Your task to perform on an android device: turn pop-ups off in chrome Image 0: 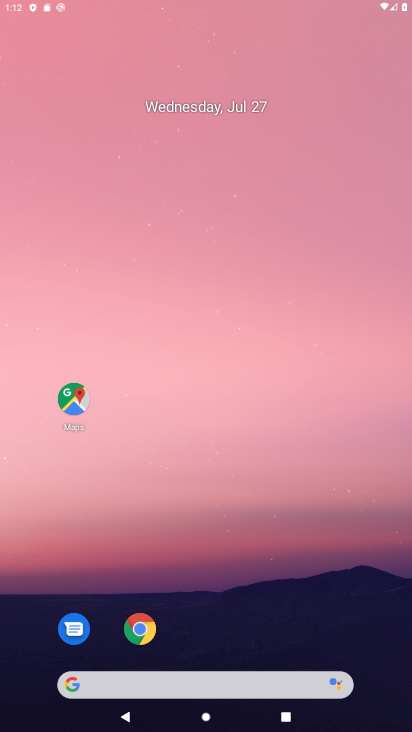
Step 0: press home button
Your task to perform on an android device: turn pop-ups off in chrome Image 1: 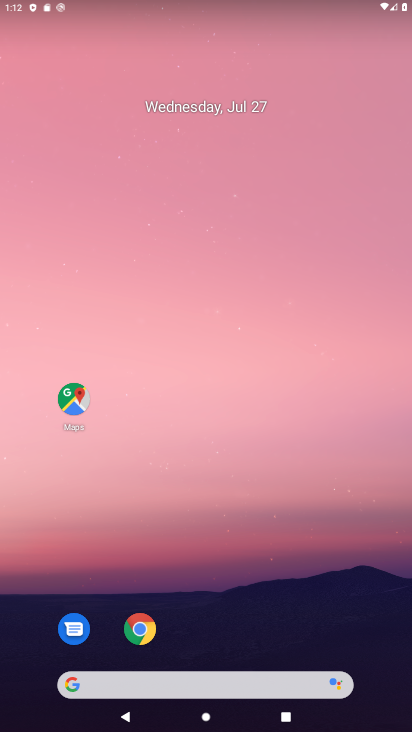
Step 1: drag from (244, 648) to (261, 345)
Your task to perform on an android device: turn pop-ups off in chrome Image 2: 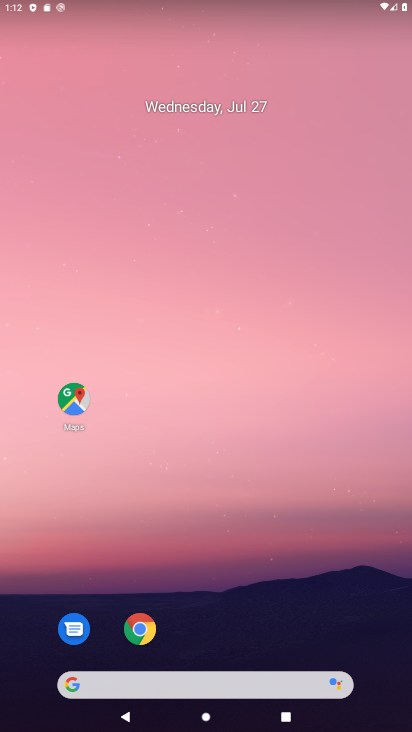
Step 2: drag from (339, 638) to (344, 54)
Your task to perform on an android device: turn pop-ups off in chrome Image 3: 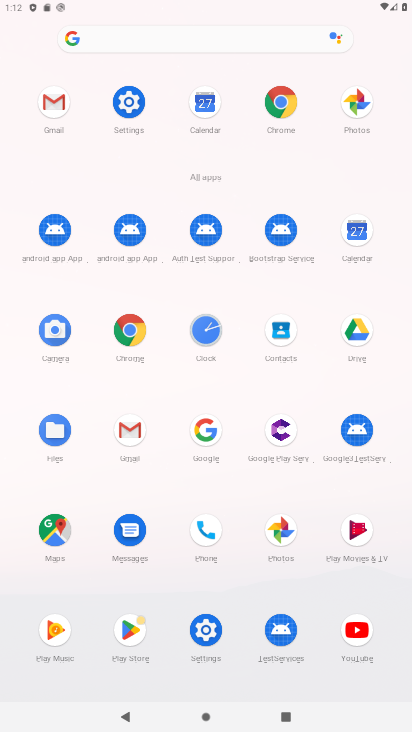
Step 3: click (278, 114)
Your task to perform on an android device: turn pop-ups off in chrome Image 4: 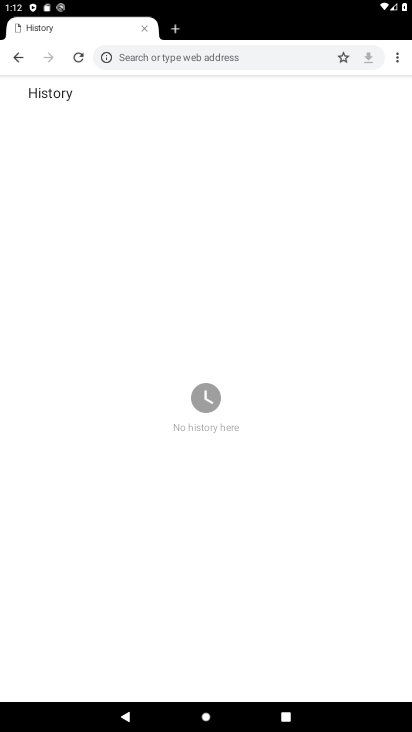
Step 4: drag from (396, 49) to (282, 259)
Your task to perform on an android device: turn pop-ups off in chrome Image 5: 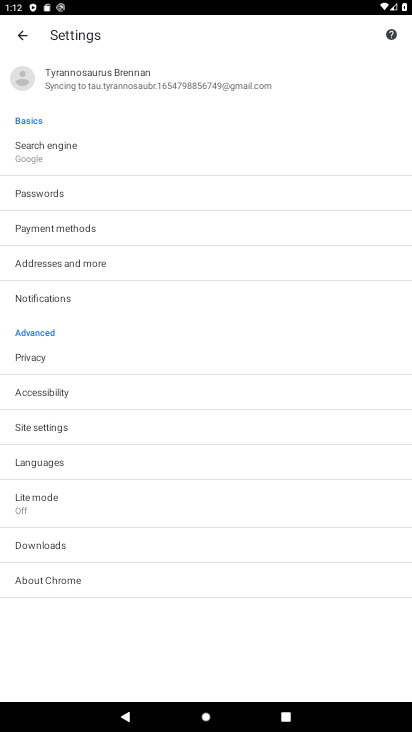
Step 5: click (28, 422)
Your task to perform on an android device: turn pop-ups off in chrome Image 6: 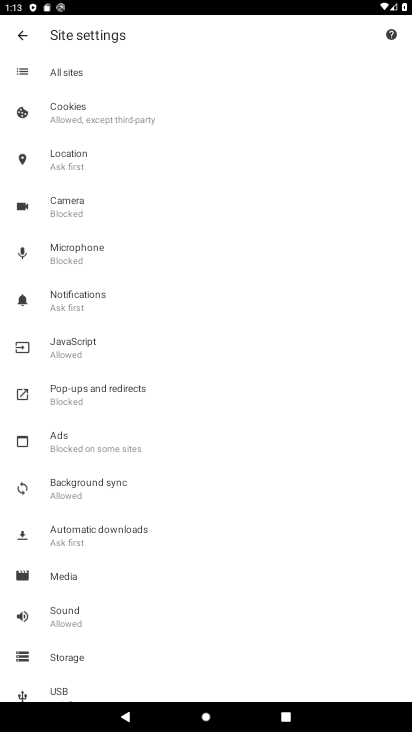
Step 6: click (91, 389)
Your task to perform on an android device: turn pop-ups off in chrome Image 7: 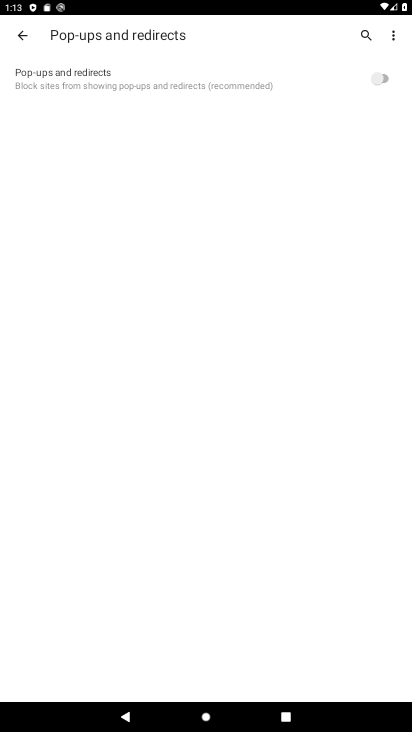
Step 7: task complete